Your task to perform on an android device: turn on translation in the chrome app Image 0: 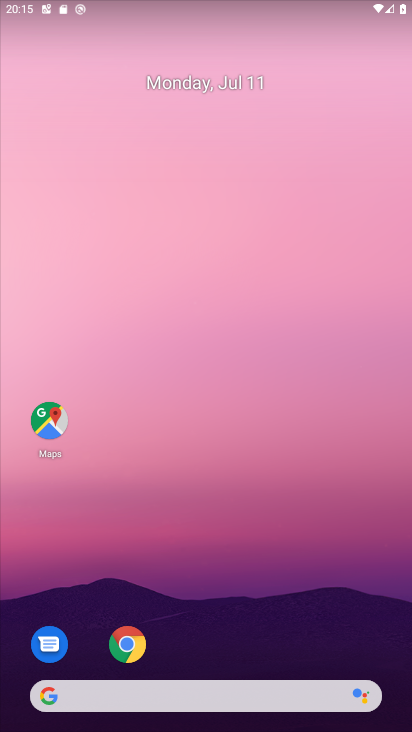
Step 0: drag from (196, 672) to (189, 443)
Your task to perform on an android device: turn on translation in the chrome app Image 1: 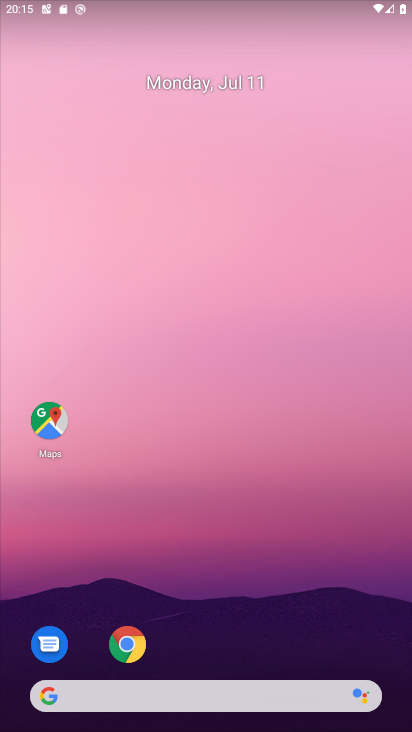
Step 1: click (123, 631)
Your task to perform on an android device: turn on translation in the chrome app Image 2: 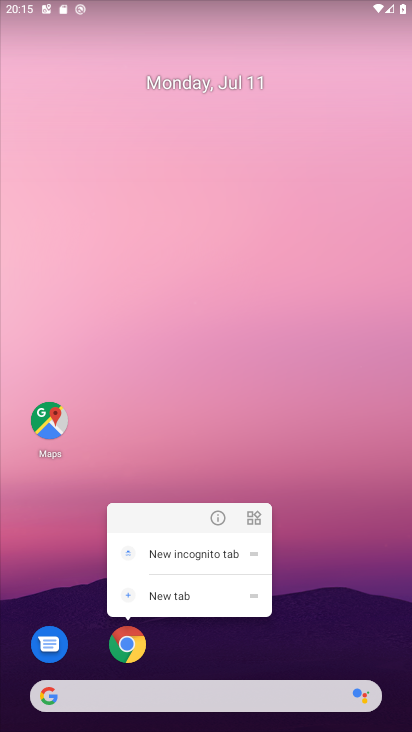
Step 2: click (104, 631)
Your task to perform on an android device: turn on translation in the chrome app Image 3: 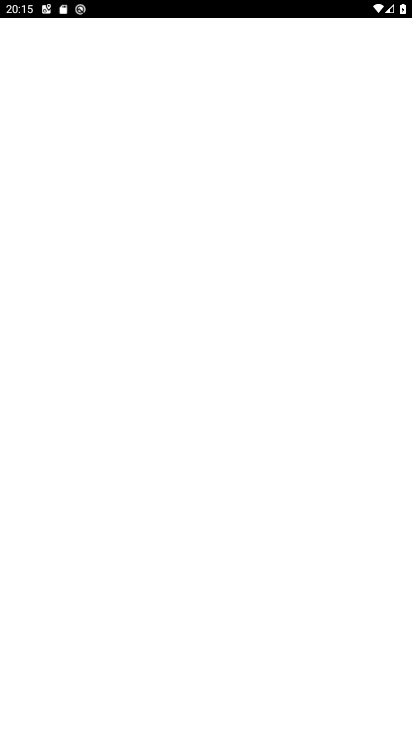
Step 3: click (157, 656)
Your task to perform on an android device: turn on translation in the chrome app Image 4: 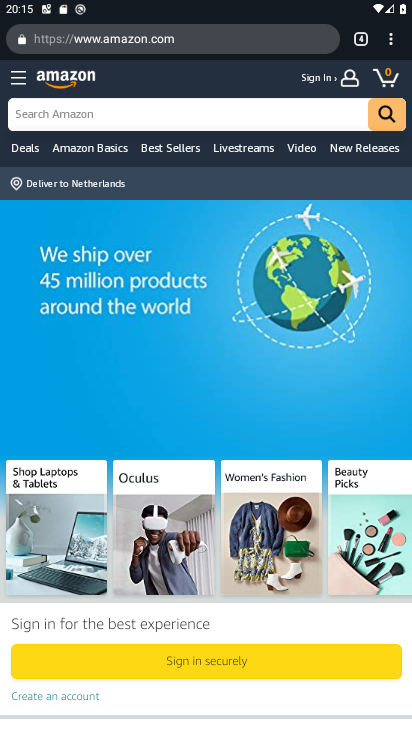
Step 4: click (396, 40)
Your task to perform on an android device: turn on translation in the chrome app Image 5: 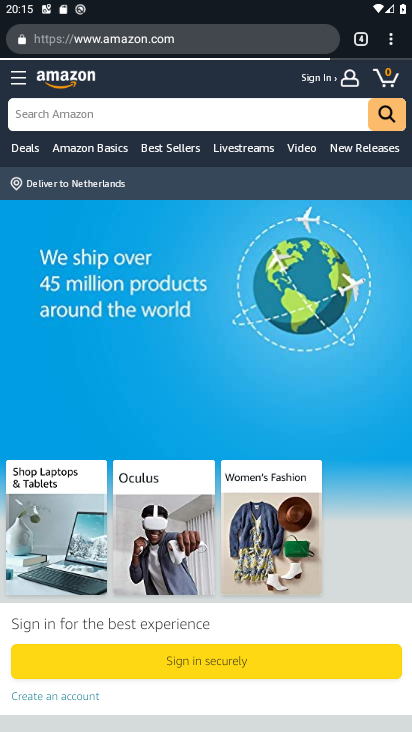
Step 5: click (396, 40)
Your task to perform on an android device: turn on translation in the chrome app Image 6: 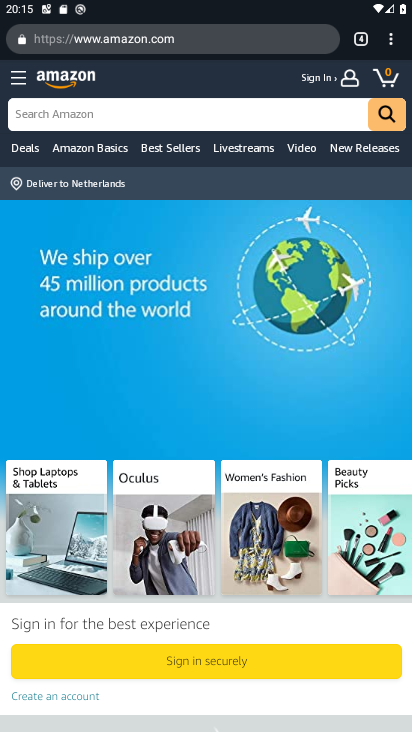
Step 6: click (396, 40)
Your task to perform on an android device: turn on translation in the chrome app Image 7: 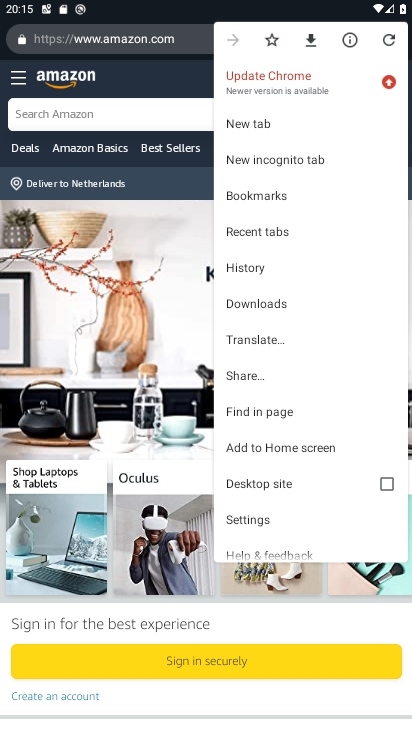
Step 7: click (256, 522)
Your task to perform on an android device: turn on translation in the chrome app Image 8: 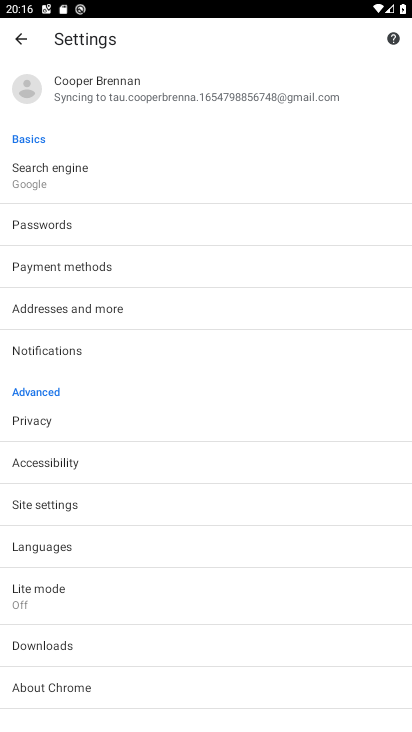
Step 8: click (73, 558)
Your task to perform on an android device: turn on translation in the chrome app Image 9: 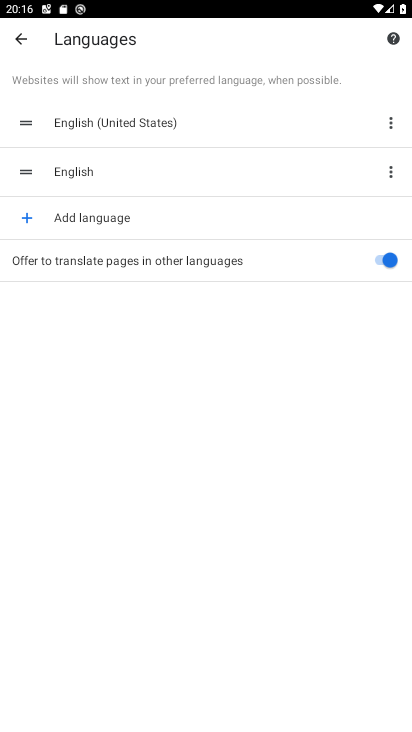
Step 9: task complete